Your task to perform on an android device: turn on the 24-hour format for clock Image 0: 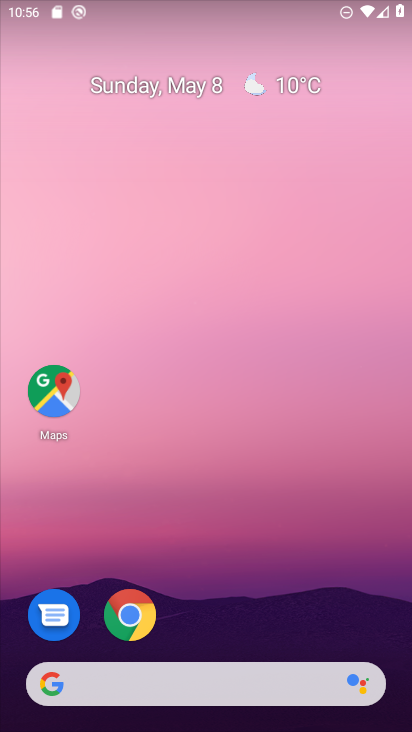
Step 0: drag from (311, 638) to (259, 134)
Your task to perform on an android device: turn on the 24-hour format for clock Image 1: 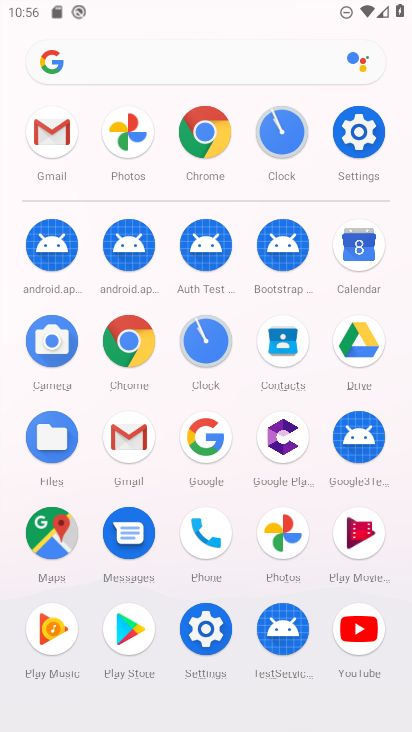
Step 1: click (217, 340)
Your task to perform on an android device: turn on the 24-hour format for clock Image 2: 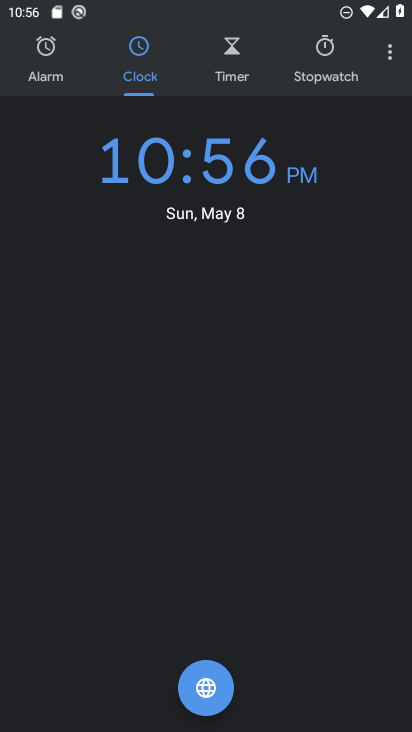
Step 2: drag from (399, 53) to (326, 112)
Your task to perform on an android device: turn on the 24-hour format for clock Image 3: 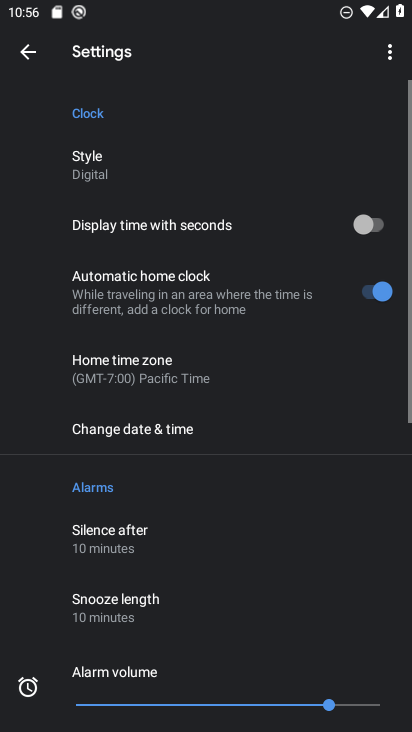
Step 3: drag from (258, 553) to (249, 15)
Your task to perform on an android device: turn on the 24-hour format for clock Image 4: 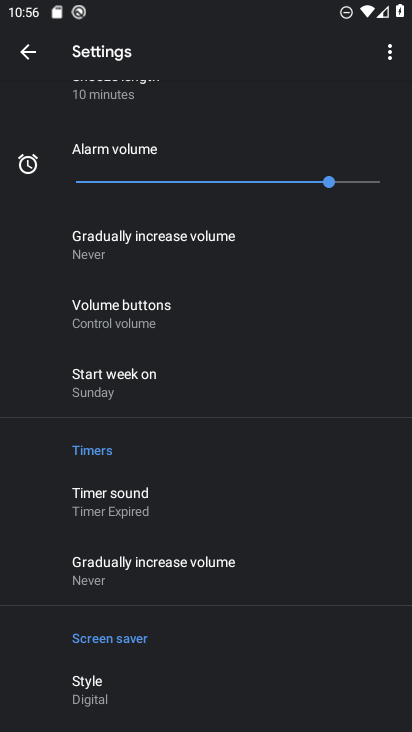
Step 4: click (278, 565)
Your task to perform on an android device: turn on the 24-hour format for clock Image 5: 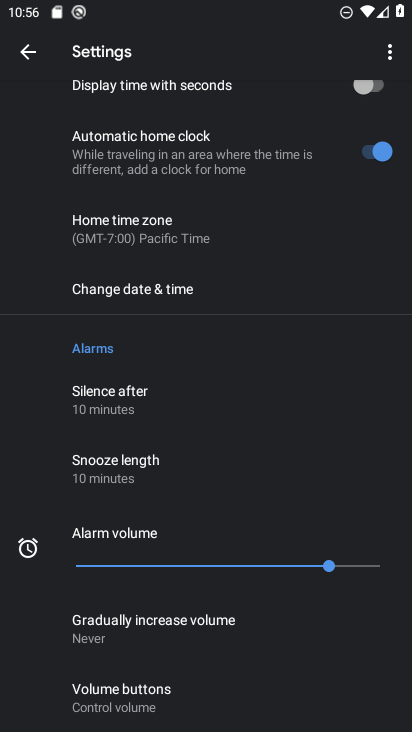
Step 5: click (189, 292)
Your task to perform on an android device: turn on the 24-hour format for clock Image 6: 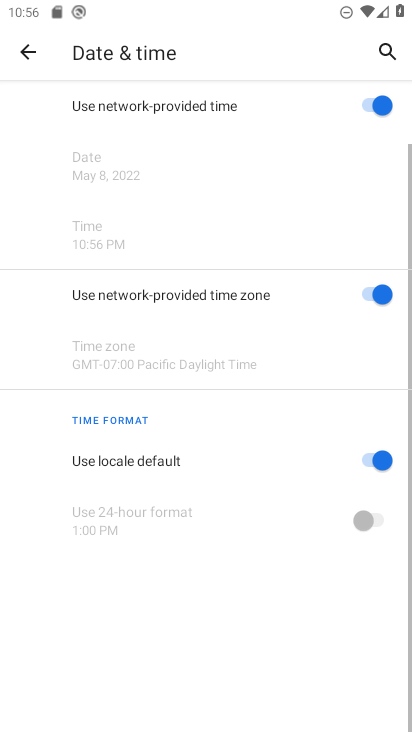
Step 6: drag from (218, 534) to (204, 129)
Your task to perform on an android device: turn on the 24-hour format for clock Image 7: 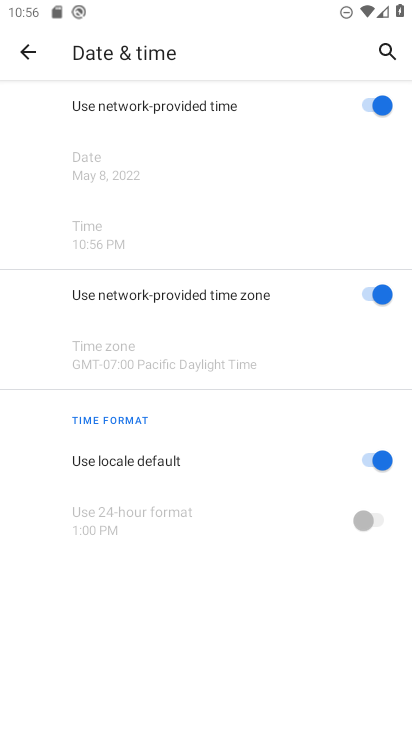
Step 7: click (383, 464)
Your task to perform on an android device: turn on the 24-hour format for clock Image 8: 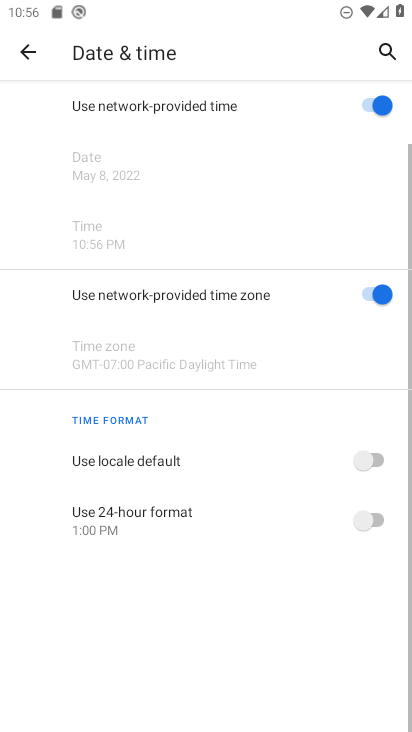
Step 8: click (380, 517)
Your task to perform on an android device: turn on the 24-hour format for clock Image 9: 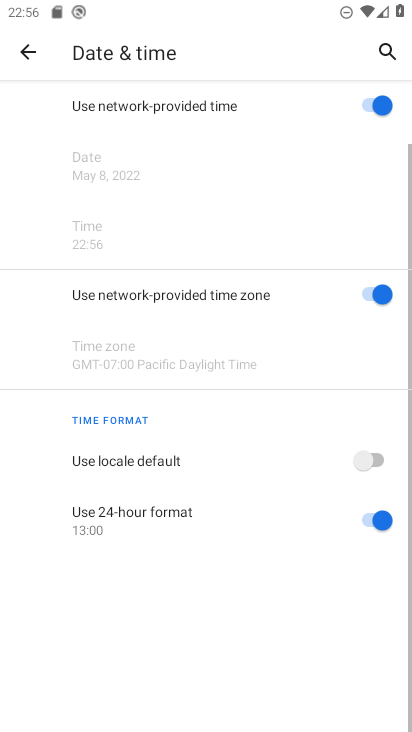
Step 9: task complete